Your task to perform on an android device: What is the news today? Image 0: 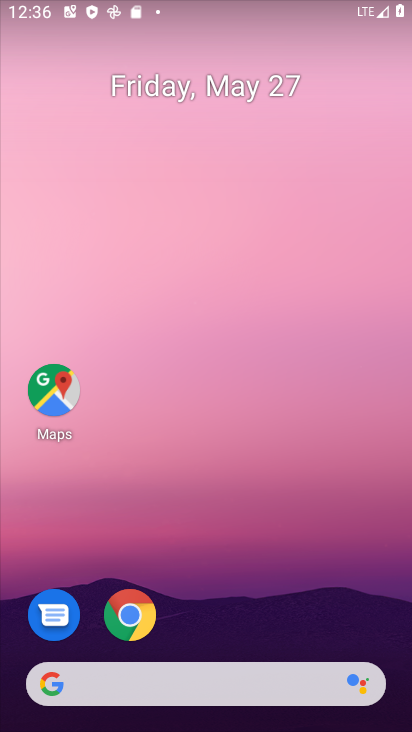
Step 0: drag from (307, 634) to (352, 75)
Your task to perform on an android device: What is the news today? Image 1: 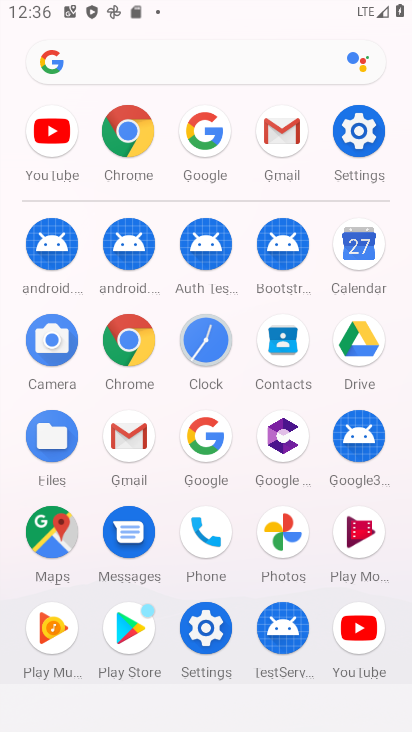
Step 1: click (108, 338)
Your task to perform on an android device: What is the news today? Image 2: 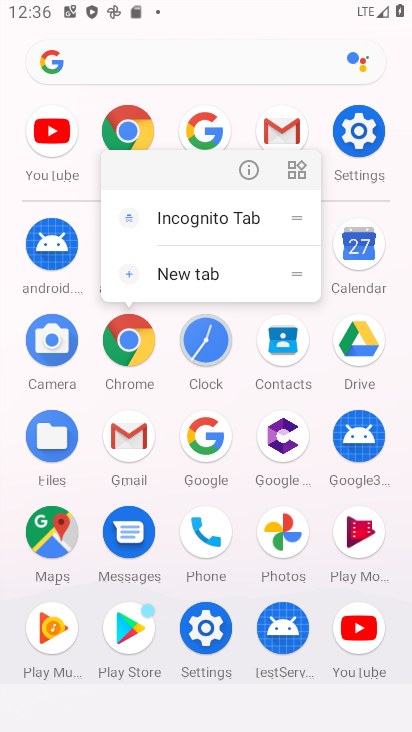
Step 2: click (145, 351)
Your task to perform on an android device: What is the news today? Image 3: 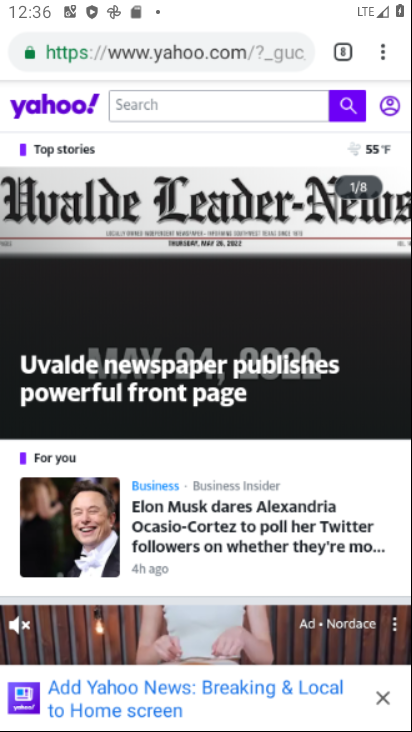
Step 3: click (203, 54)
Your task to perform on an android device: What is the news today? Image 4: 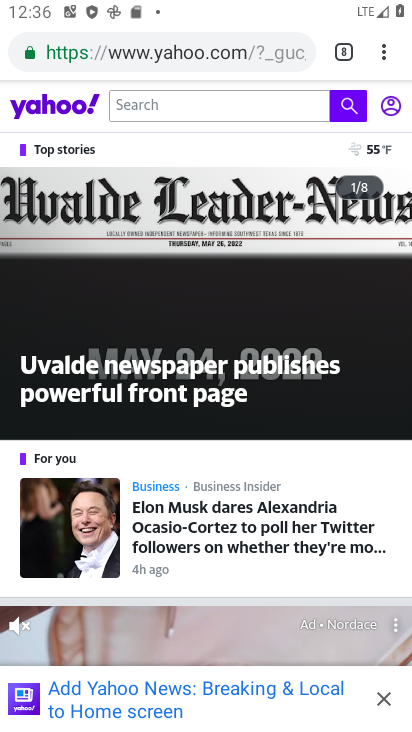
Step 4: click (262, 55)
Your task to perform on an android device: What is the news today? Image 5: 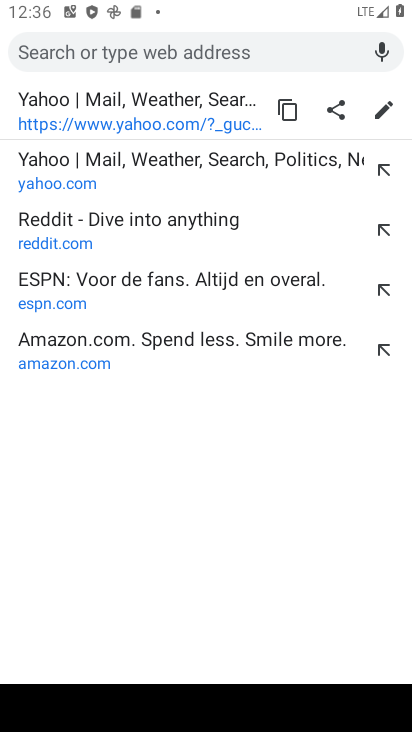
Step 5: type "news today"
Your task to perform on an android device: What is the news today? Image 6: 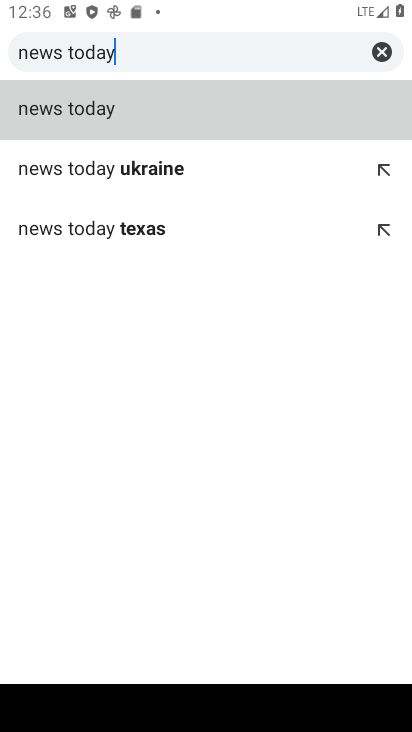
Step 6: click (173, 103)
Your task to perform on an android device: What is the news today? Image 7: 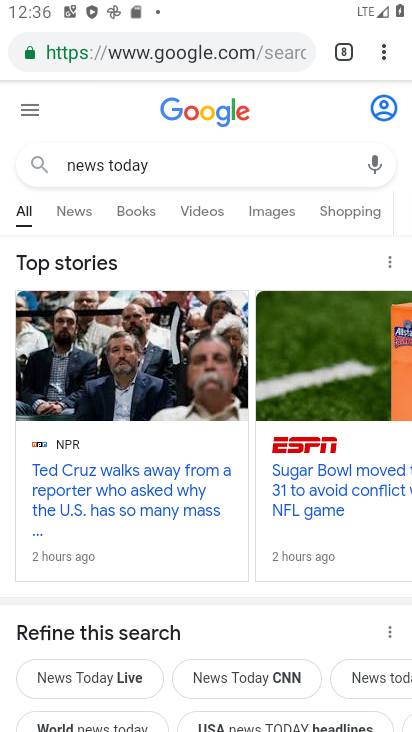
Step 7: task complete